Your task to perform on an android device: Show me popular games on the Play Store Image 0: 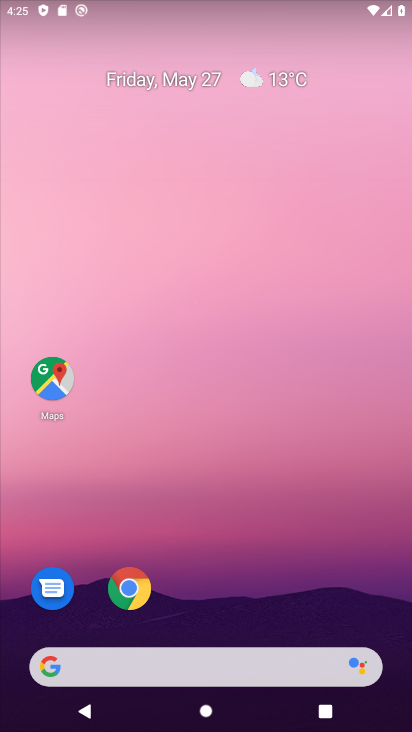
Step 0: drag from (214, 587) to (276, 100)
Your task to perform on an android device: Show me popular games on the Play Store Image 1: 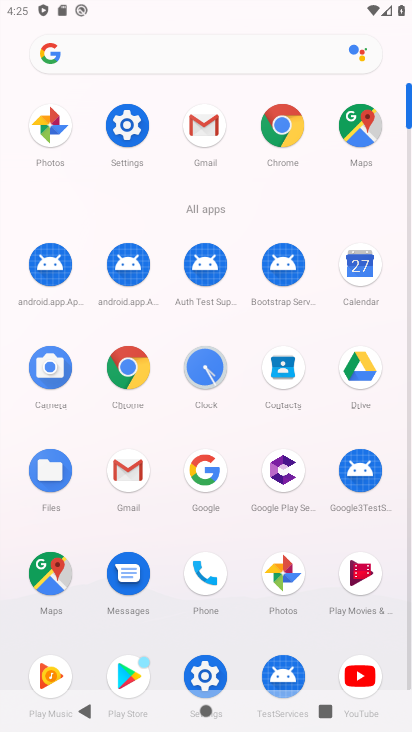
Step 1: click (127, 662)
Your task to perform on an android device: Show me popular games on the Play Store Image 2: 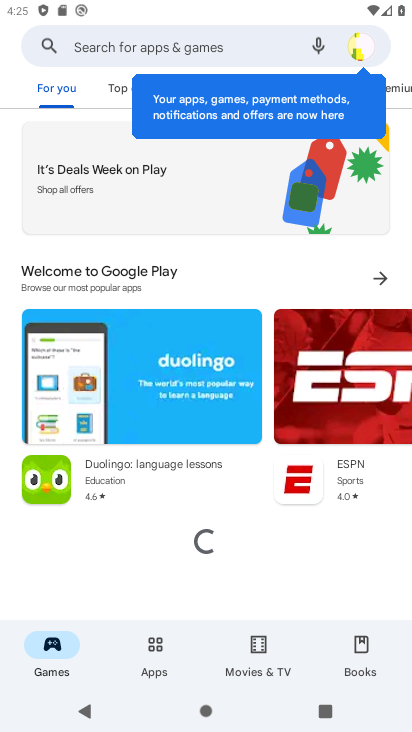
Step 2: drag from (203, 541) to (265, 153)
Your task to perform on an android device: Show me popular games on the Play Store Image 3: 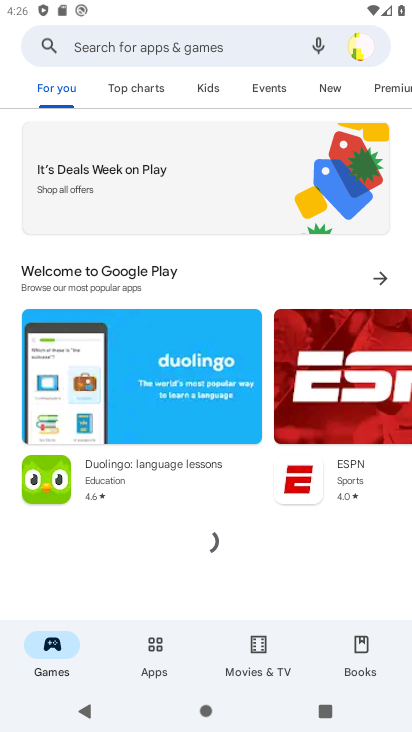
Step 3: click (157, 654)
Your task to perform on an android device: Show me popular games on the Play Store Image 4: 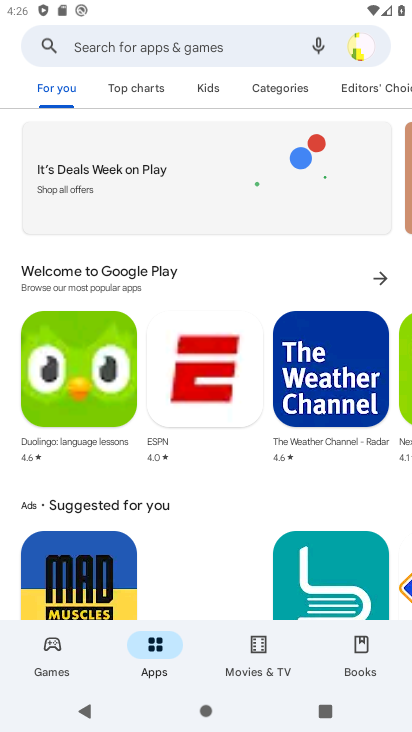
Step 4: click (41, 645)
Your task to perform on an android device: Show me popular games on the Play Store Image 5: 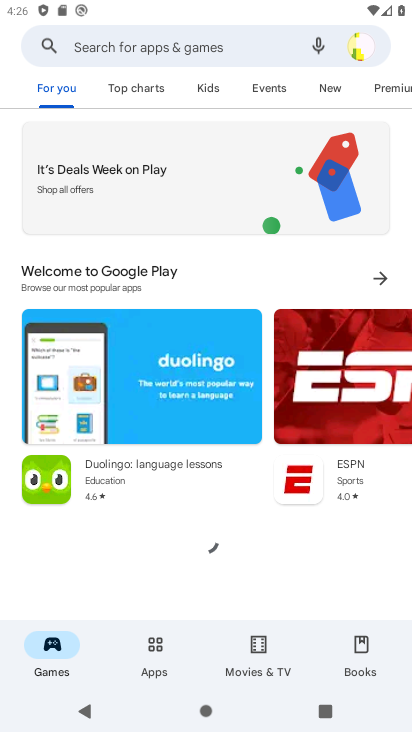
Step 5: drag from (163, 546) to (228, 79)
Your task to perform on an android device: Show me popular games on the Play Store Image 6: 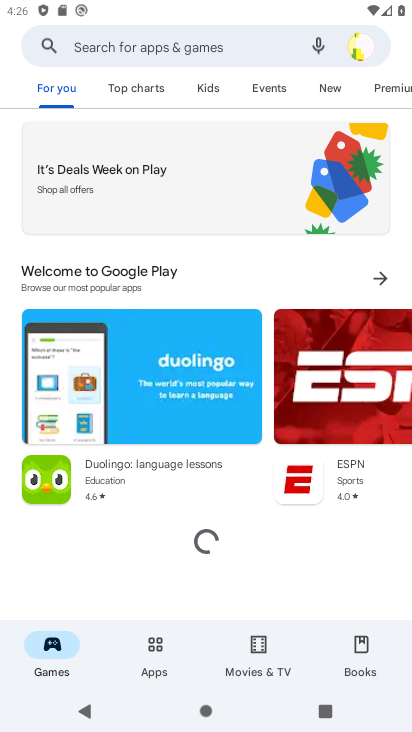
Step 6: click (117, 93)
Your task to perform on an android device: Show me popular games on the Play Store Image 7: 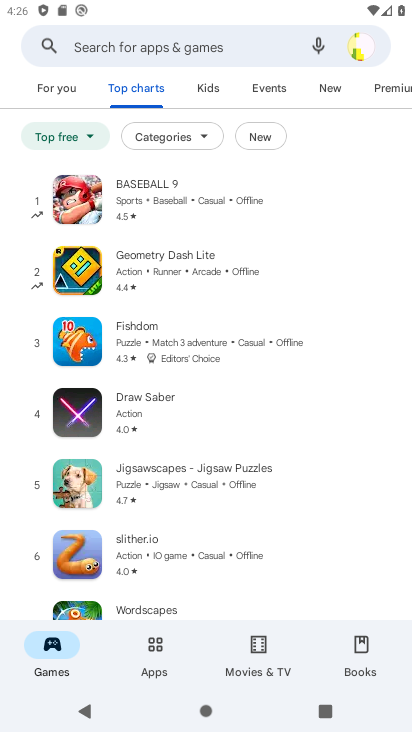
Step 7: click (59, 85)
Your task to perform on an android device: Show me popular games on the Play Store Image 8: 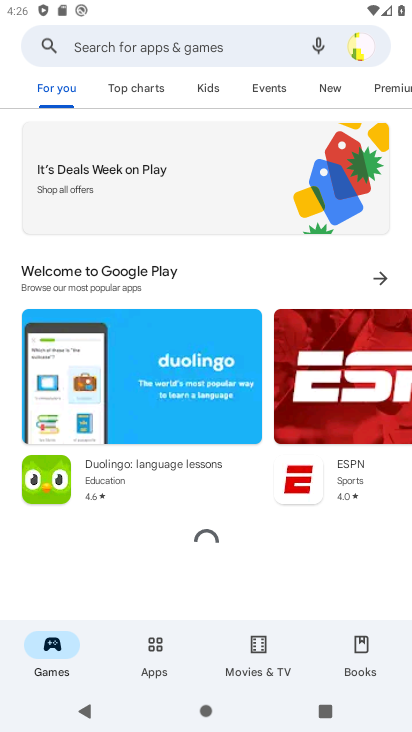
Step 8: task complete